Your task to perform on an android device: Search for Italian restaurants on Maps Image 0: 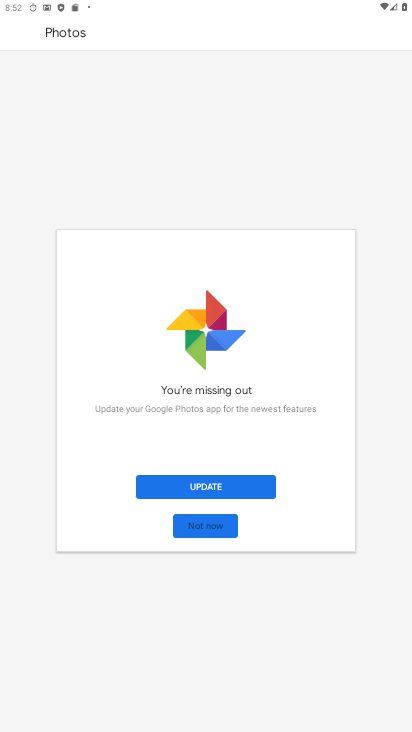
Step 0: click (226, 519)
Your task to perform on an android device: Search for Italian restaurants on Maps Image 1: 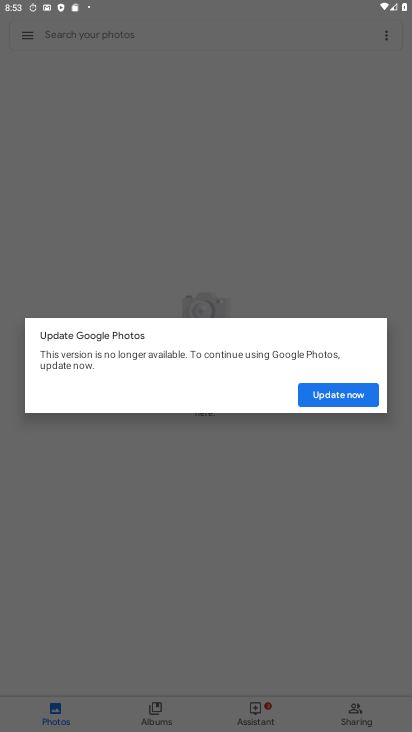
Step 1: press back button
Your task to perform on an android device: Search for Italian restaurants on Maps Image 2: 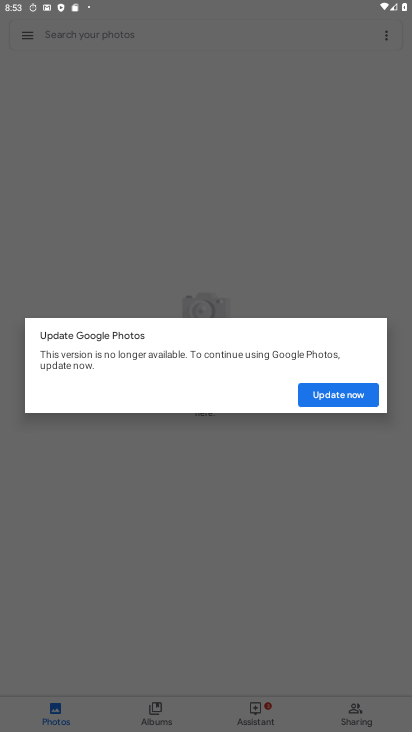
Step 2: press back button
Your task to perform on an android device: Search for Italian restaurants on Maps Image 3: 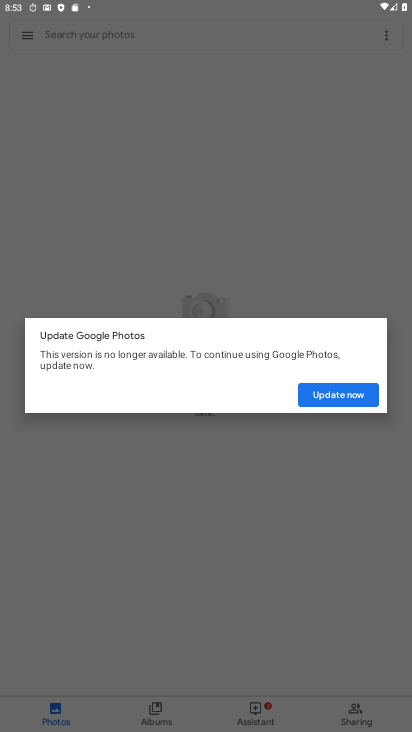
Step 3: press home button
Your task to perform on an android device: Search for Italian restaurants on Maps Image 4: 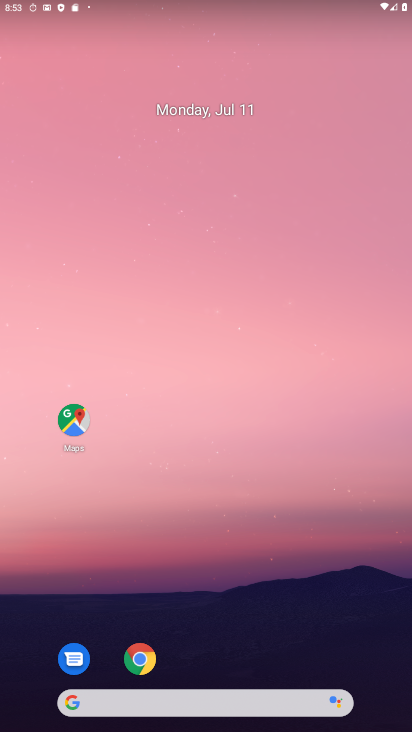
Step 4: drag from (245, 517) to (214, 223)
Your task to perform on an android device: Search for Italian restaurants on Maps Image 5: 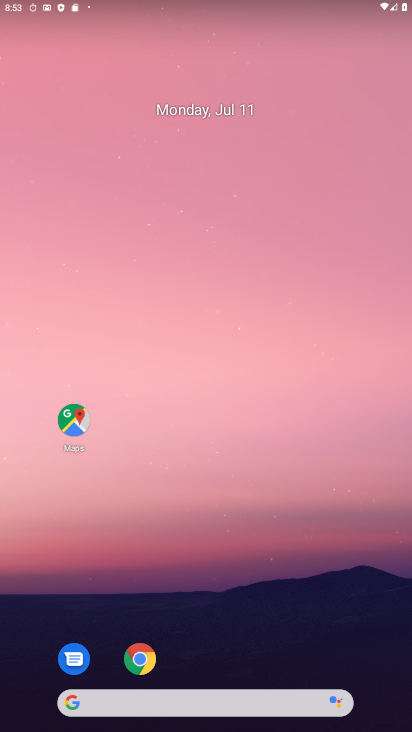
Step 5: drag from (266, 671) to (196, 261)
Your task to perform on an android device: Search for Italian restaurants on Maps Image 6: 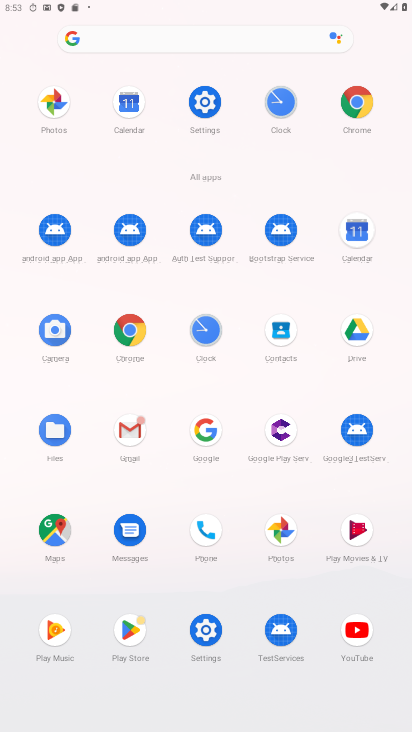
Step 6: click (47, 527)
Your task to perform on an android device: Search for Italian restaurants on Maps Image 7: 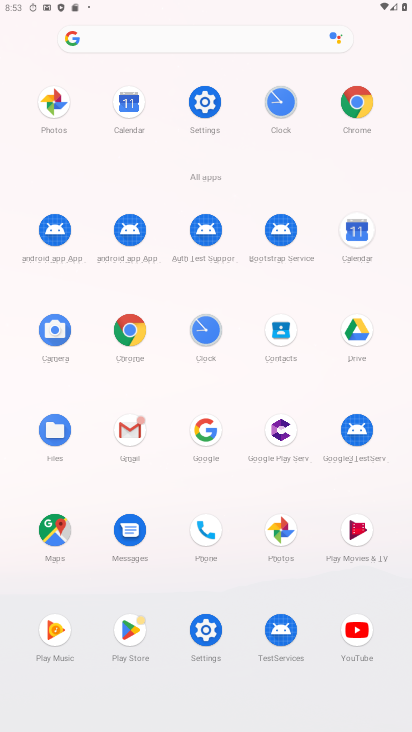
Step 7: click (43, 525)
Your task to perform on an android device: Search for Italian restaurants on Maps Image 8: 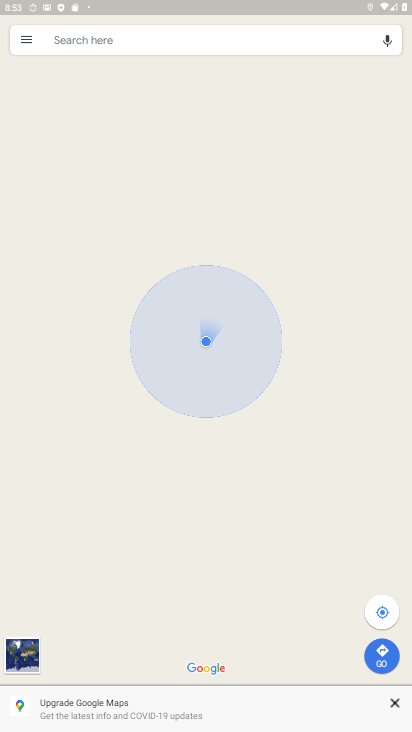
Step 8: press back button
Your task to perform on an android device: Search for Italian restaurants on Maps Image 9: 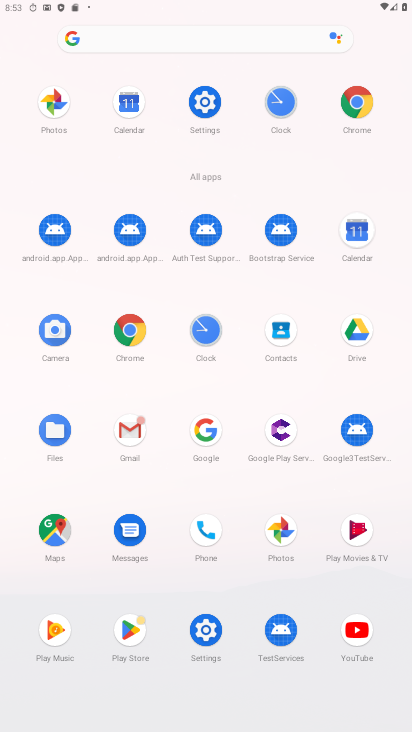
Step 9: click (56, 522)
Your task to perform on an android device: Search for Italian restaurants on Maps Image 10: 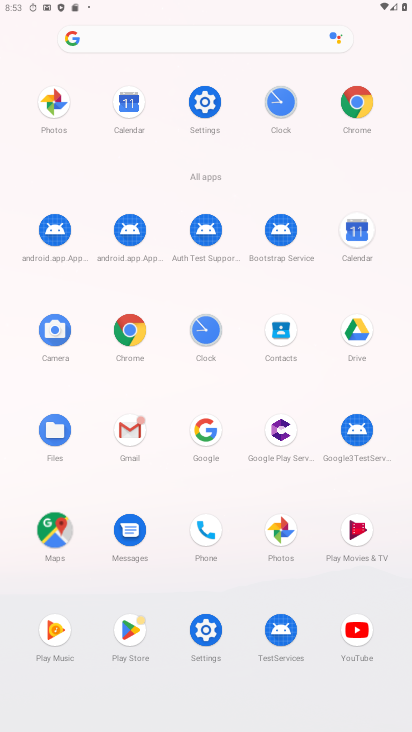
Step 10: click (56, 522)
Your task to perform on an android device: Search for Italian restaurants on Maps Image 11: 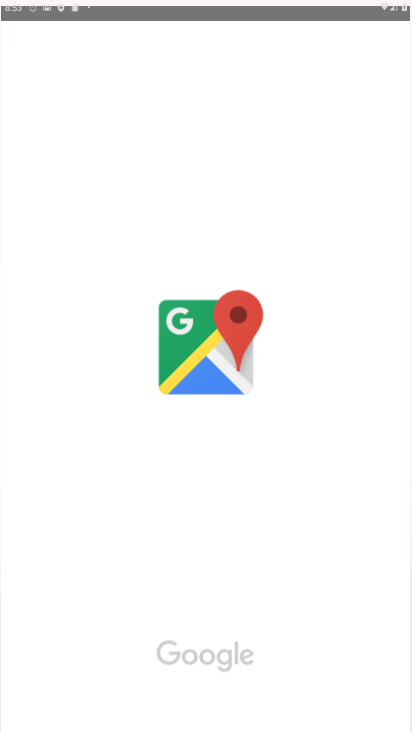
Step 11: click (56, 522)
Your task to perform on an android device: Search for Italian restaurants on Maps Image 12: 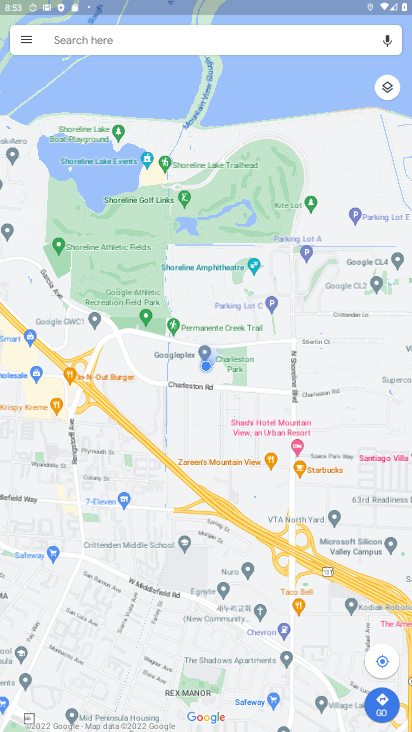
Step 12: click (100, 37)
Your task to perform on an android device: Search for Italian restaurants on Maps Image 13: 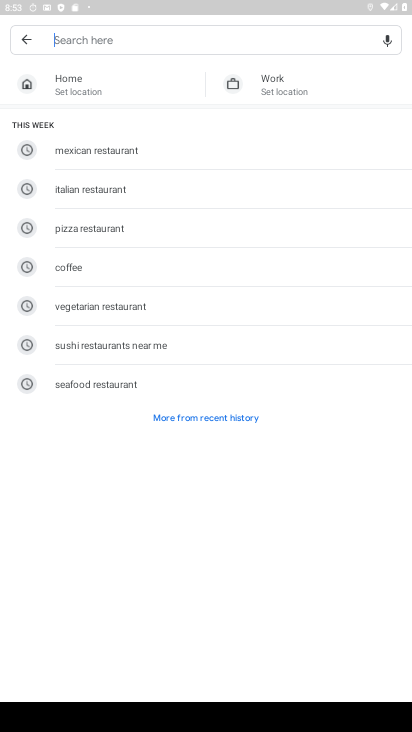
Step 13: click (118, 192)
Your task to perform on an android device: Search for Italian restaurants on Maps Image 14: 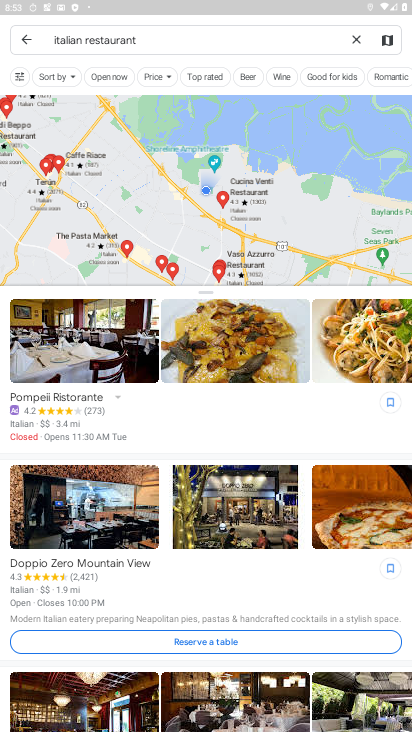
Step 14: task complete